Your task to perform on an android device: turn on airplane mode Image 0: 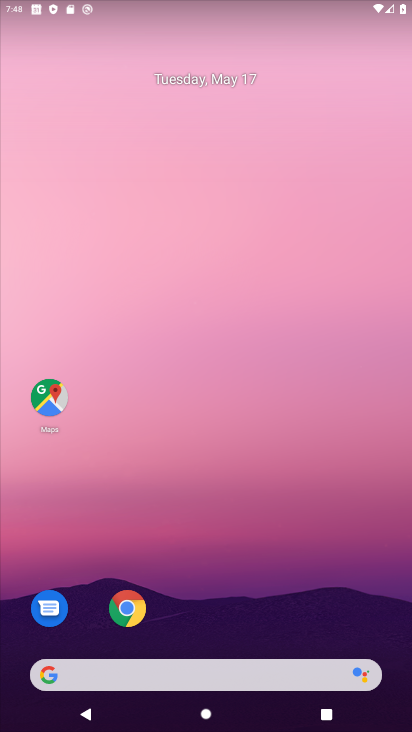
Step 0: drag from (242, 623) to (358, 53)
Your task to perform on an android device: turn on airplane mode Image 1: 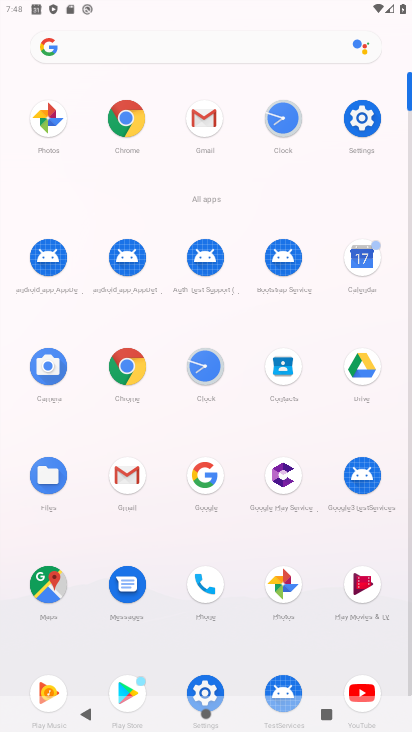
Step 1: click (369, 132)
Your task to perform on an android device: turn on airplane mode Image 2: 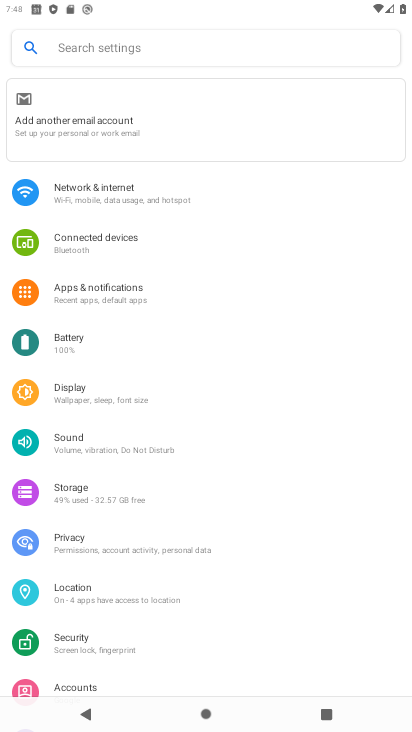
Step 2: click (97, 191)
Your task to perform on an android device: turn on airplane mode Image 3: 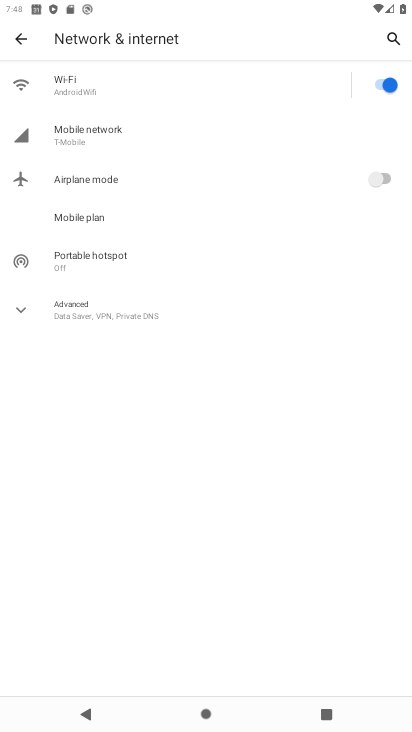
Step 3: click (390, 180)
Your task to perform on an android device: turn on airplane mode Image 4: 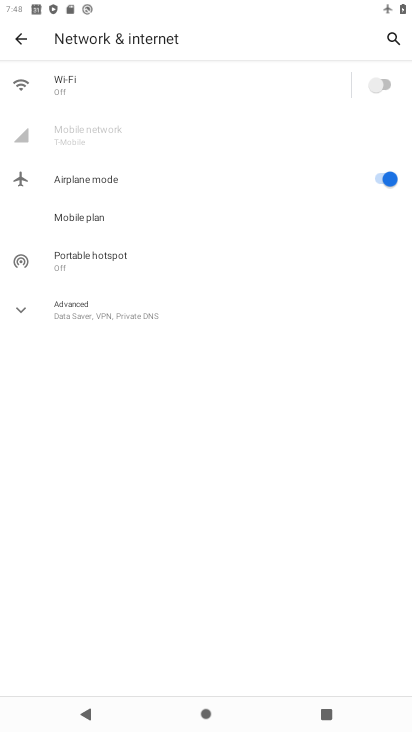
Step 4: task complete